Your task to perform on an android device: Open ESPN.com Image 0: 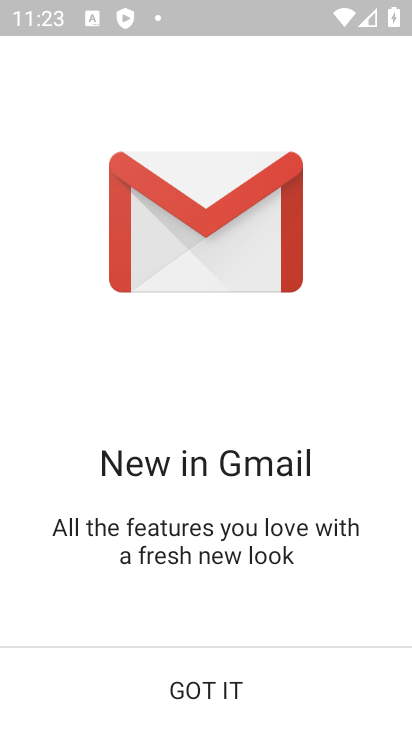
Step 0: click (205, 676)
Your task to perform on an android device: Open ESPN.com Image 1: 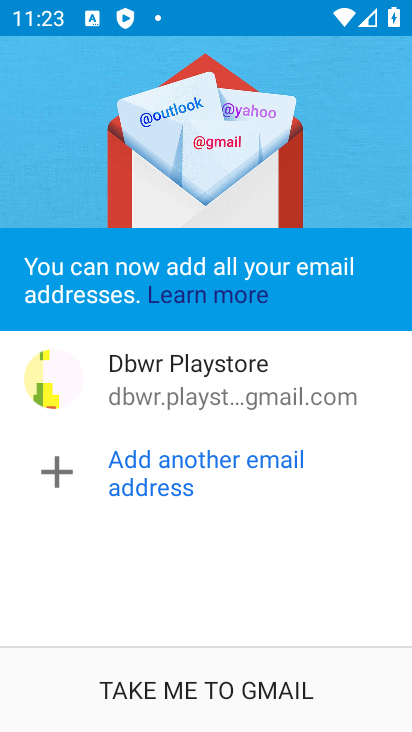
Step 1: press home button
Your task to perform on an android device: Open ESPN.com Image 2: 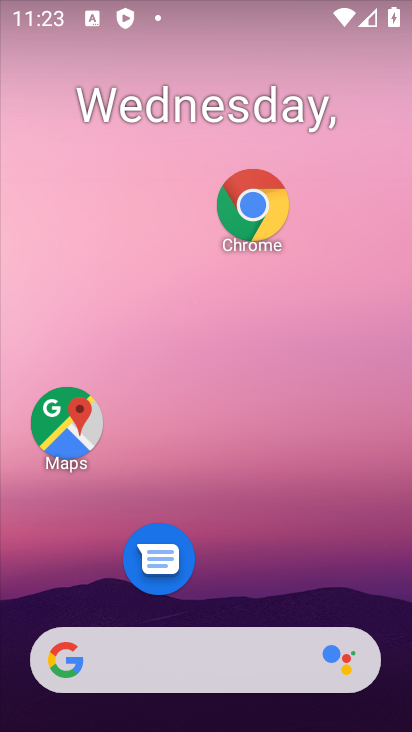
Step 2: drag from (310, 590) to (329, 174)
Your task to perform on an android device: Open ESPN.com Image 3: 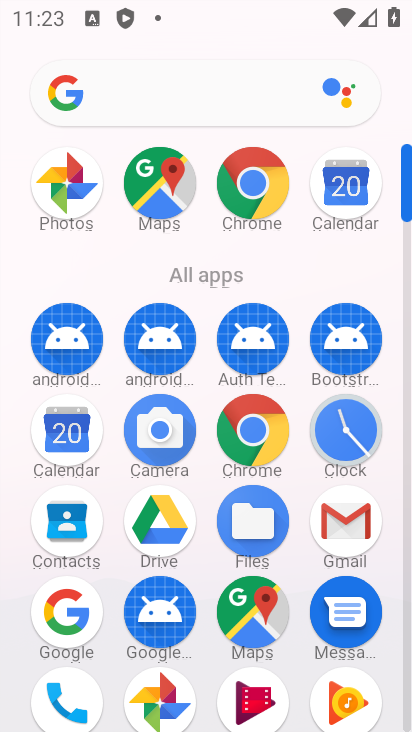
Step 3: click (262, 442)
Your task to perform on an android device: Open ESPN.com Image 4: 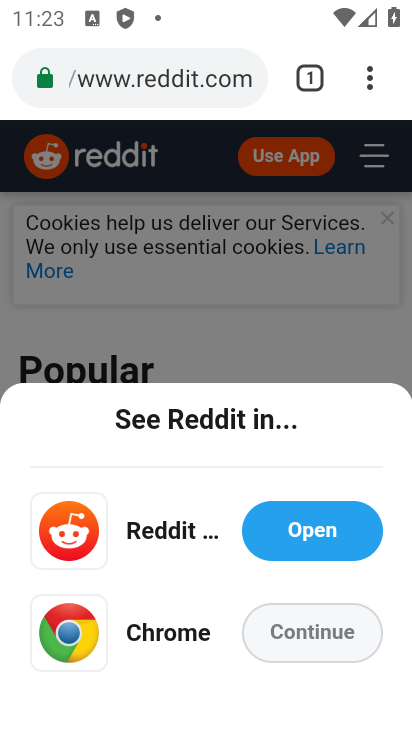
Step 4: click (212, 75)
Your task to perform on an android device: Open ESPN.com Image 5: 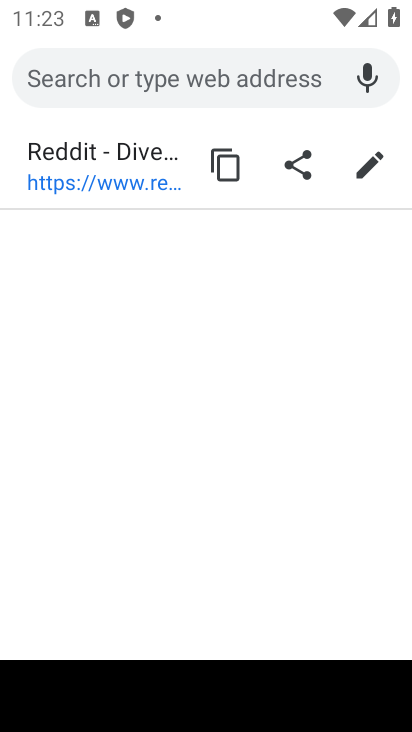
Step 5: type "espn.com"
Your task to perform on an android device: Open ESPN.com Image 6: 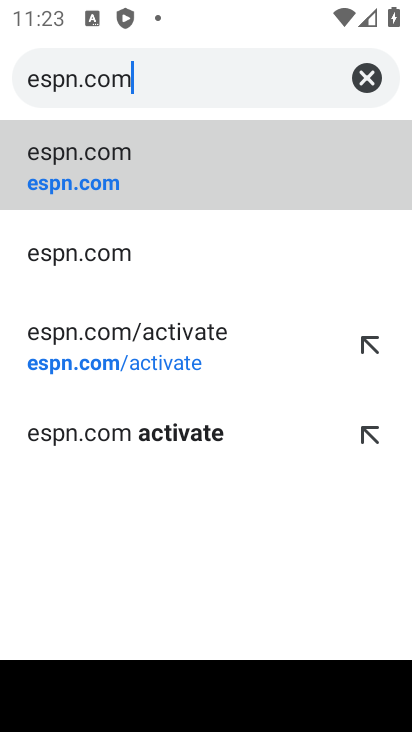
Step 6: click (91, 153)
Your task to perform on an android device: Open ESPN.com Image 7: 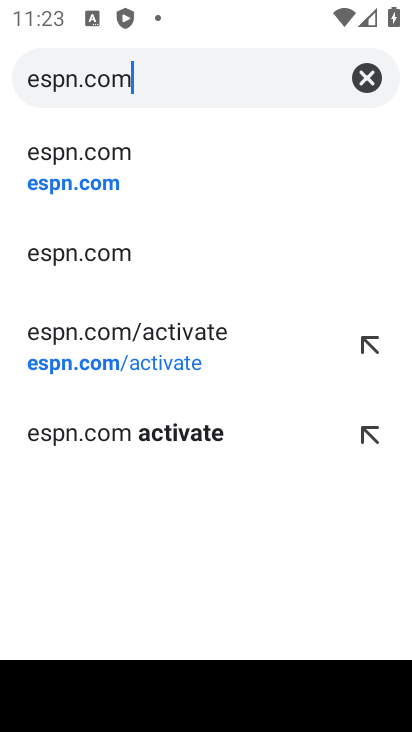
Step 7: click (91, 153)
Your task to perform on an android device: Open ESPN.com Image 8: 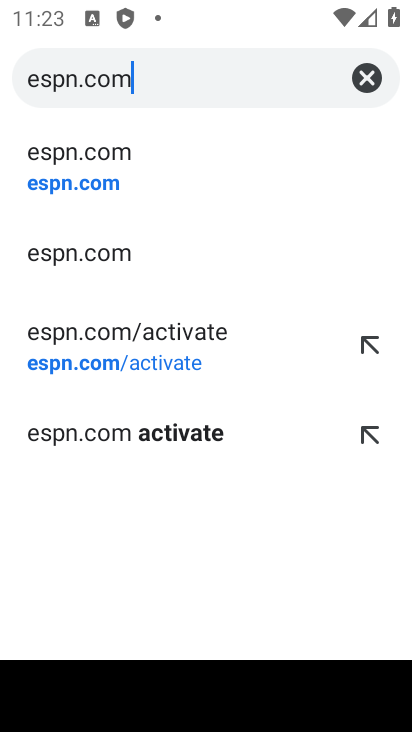
Step 8: click (97, 173)
Your task to perform on an android device: Open ESPN.com Image 9: 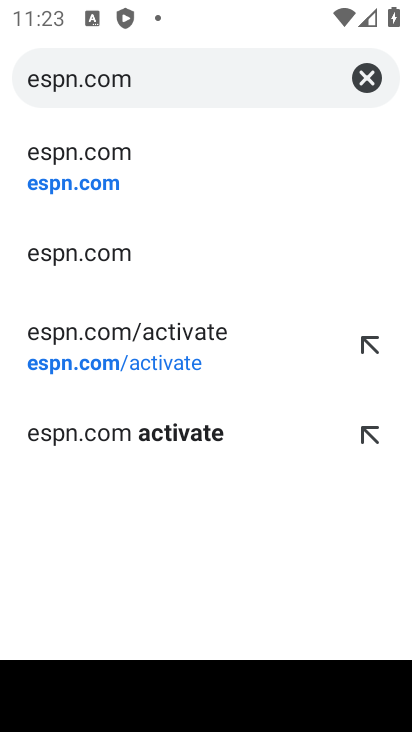
Step 9: click (97, 173)
Your task to perform on an android device: Open ESPN.com Image 10: 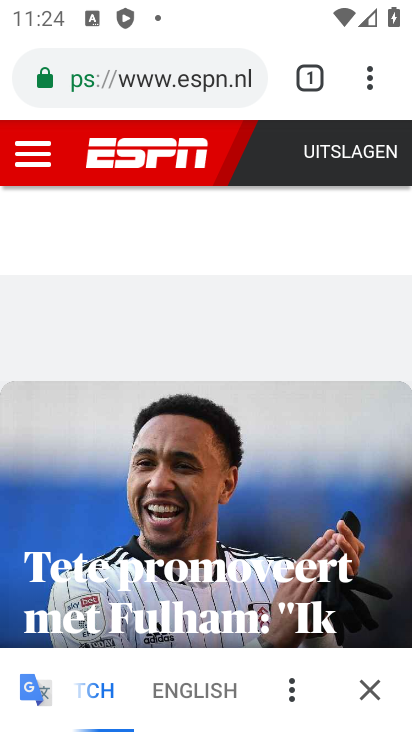
Step 10: task complete